Your task to perform on an android device: move a message to another label in the gmail app Image 0: 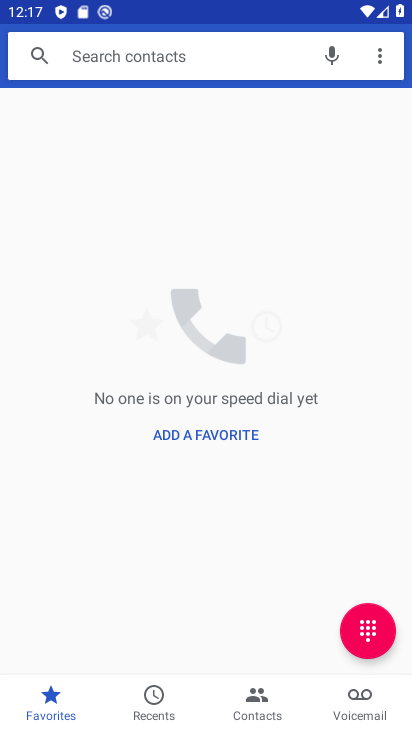
Step 0: press home button
Your task to perform on an android device: move a message to another label in the gmail app Image 1: 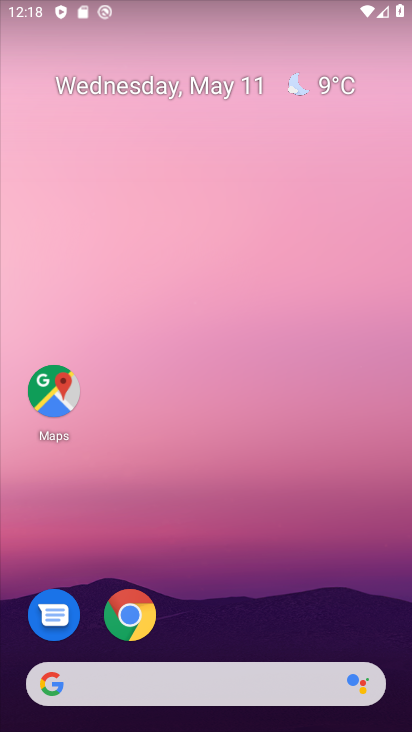
Step 1: drag from (365, 522) to (370, 73)
Your task to perform on an android device: move a message to another label in the gmail app Image 2: 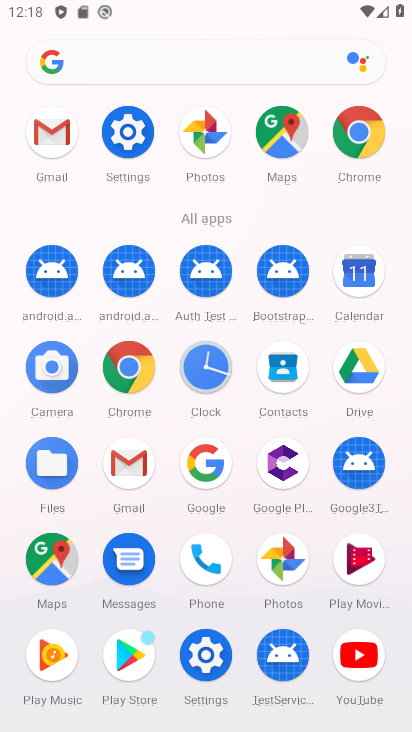
Step 2: click (60, 174)
Your task to perform on an android device: move a message to another label in the gmail app Image 3: 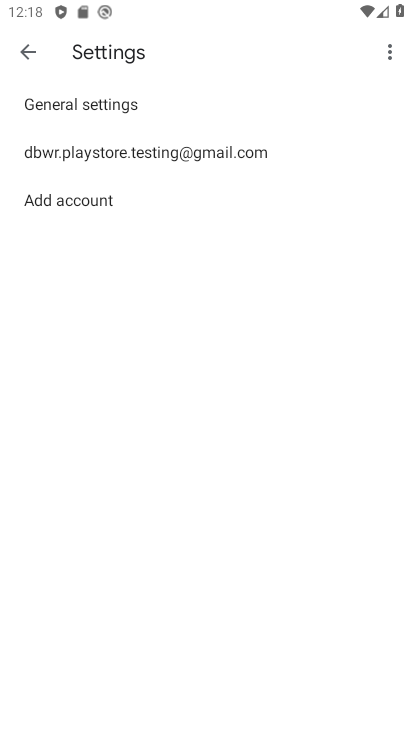
Step 3: click (19, 44)
Your task to perform on an android device: move a message to another label in the gmail app Image 4: 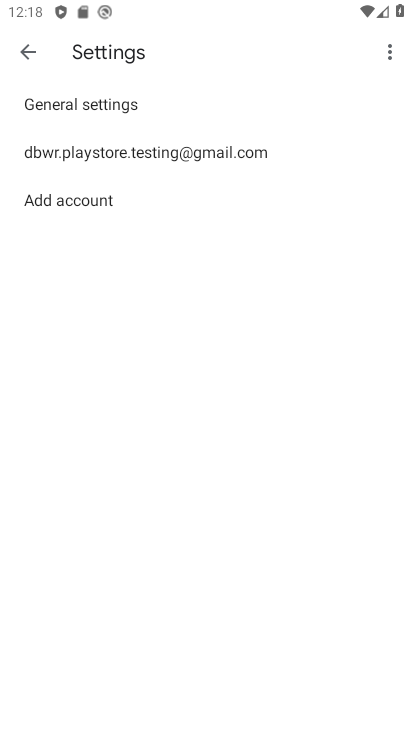
Step 4: click (22, 52)
Your task to perform on an android device: move a message to another label in the gmail app Image 5: 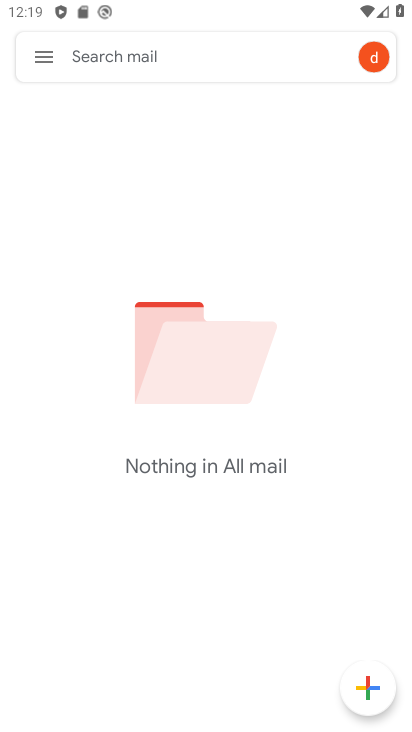
Step 5: click (22, 52)
Your task to perform on an android device: move a message to another label in the gmail app Image 6: 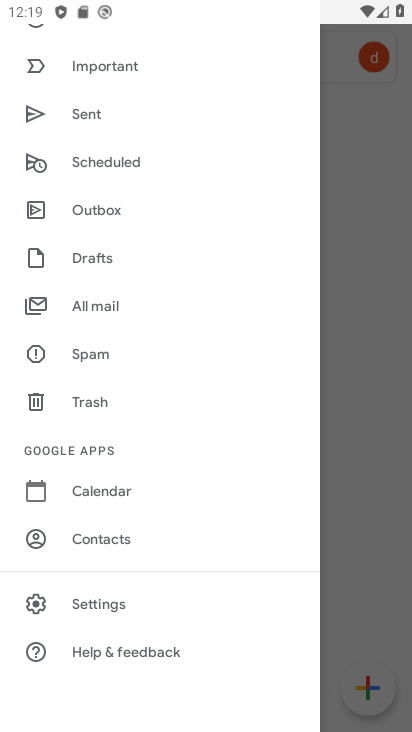
Step 6: click (118, 596)
Your task to perform on an android device: move a message to another label in the gmail app Image 7: 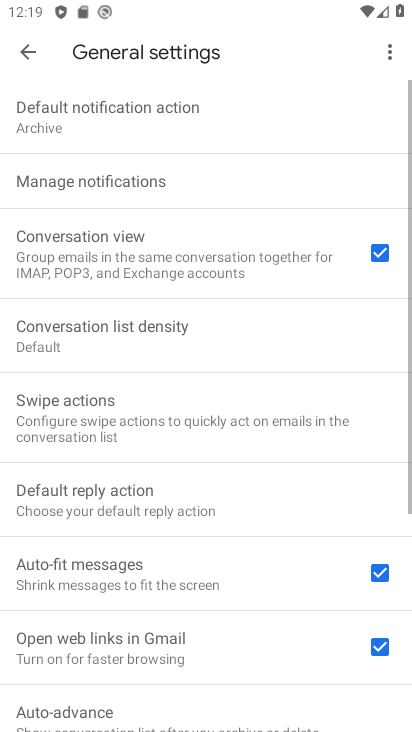
Step 7: click (37, 58)
Your task to perform on an android device: move a message to another label in the gmail app Image 8: 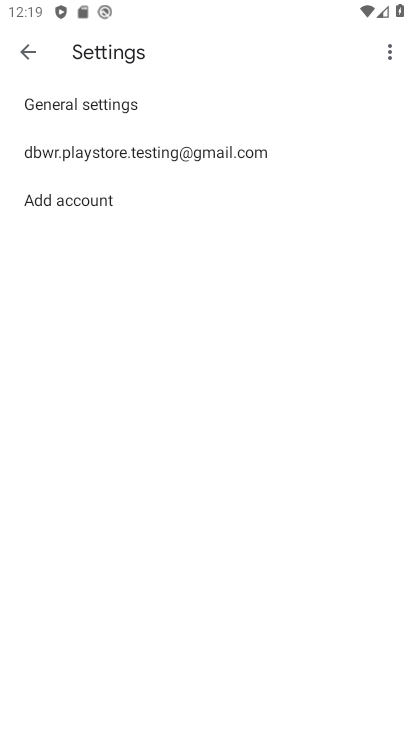
Step 8: click (57, 106)
Your task to perform on an android device: move a message to another label in the gmail app Image 9: 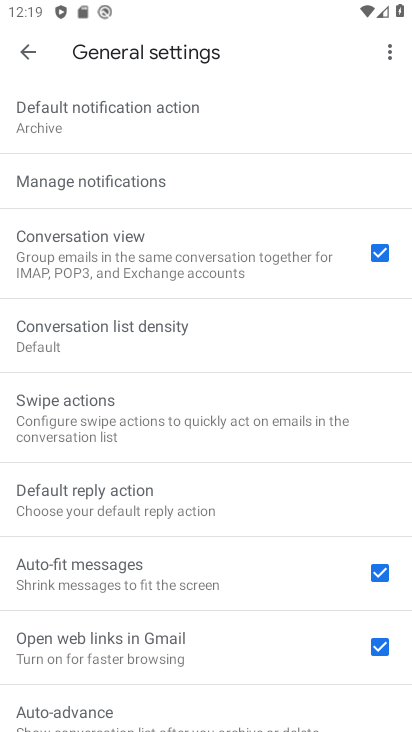
Step 9: click (26, 37)
Your task to perform on an android device: move a message to another label in the gmail app Image 10: 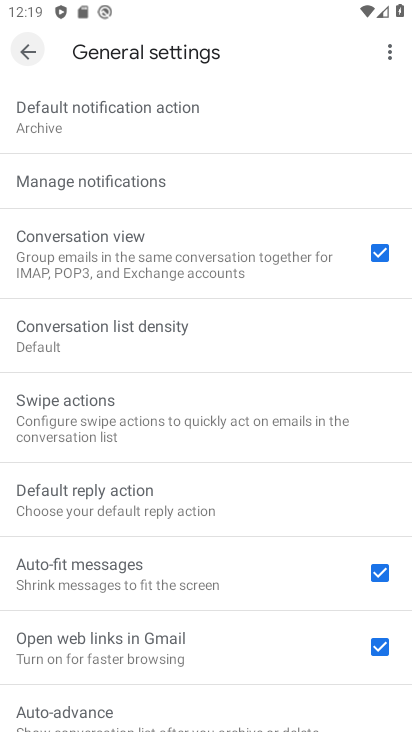
Step 10: click (26, 37)
Your task to perform on an android device: move a message to another label in the gmail app Image 11: 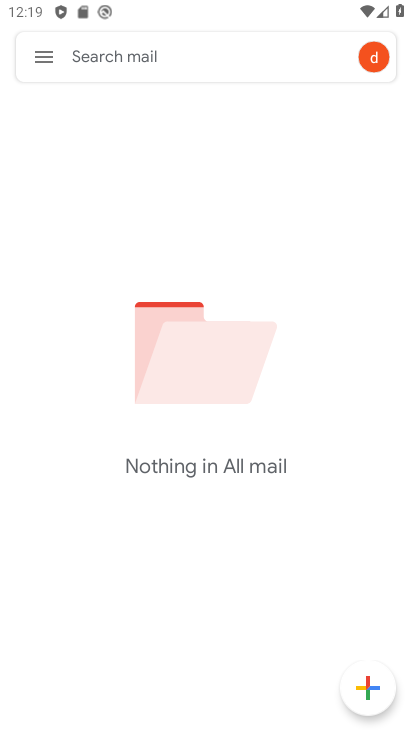
Step 11: task complete